Your task to perform on an android device: Show me recent news Image 0: 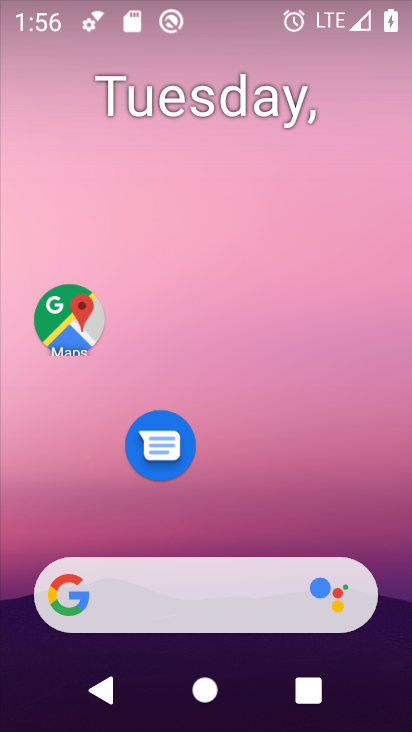
Step 0: drag from (18, 196) to (316, 228)
Your task to perform on an android device: Show me recent news Image 1: 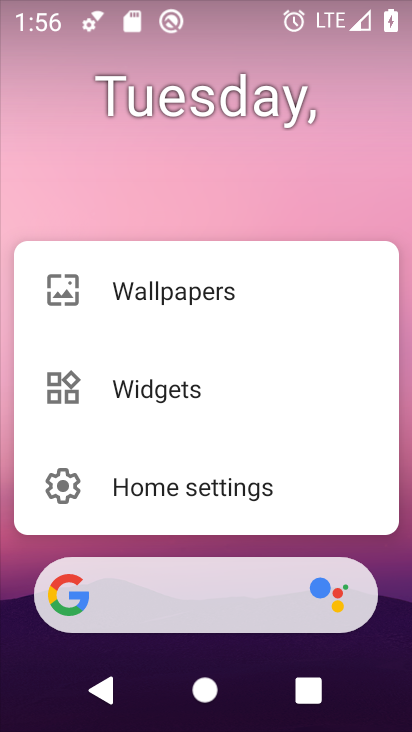
Step 1: click (202, 190)
Your task to perform on an android device: Show me recent news Image 2: 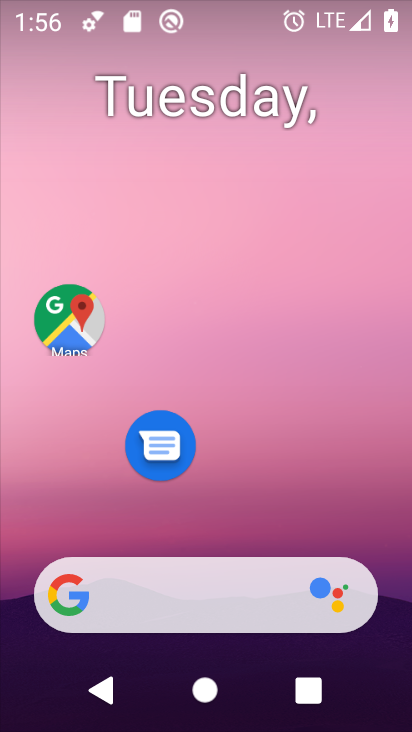
Step 2: task complete